Your task to perform on an android device: Search for dell xps on amazon.com, select the first entry, and add it to the cart. Image 0: 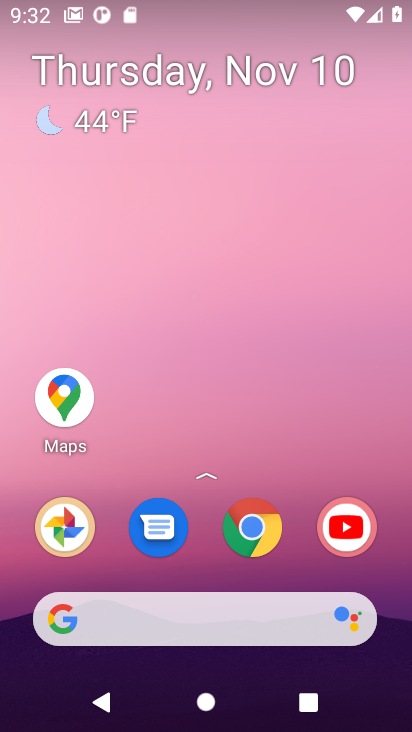
Step 0: drag from (150, 564) to (228, 137)
Your task to perform on an android device: Search for dell xps on amazon.com, select the first entry, and add it to the cart. Image 1: 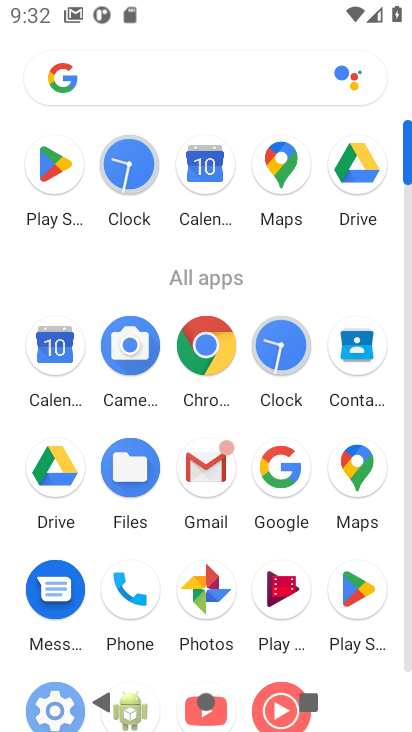
Step 1: click (205, 352)
Your task to perform on an android device: Search for dell xps on amazon.com, select the first entry, and add it to the cart. Image 2: 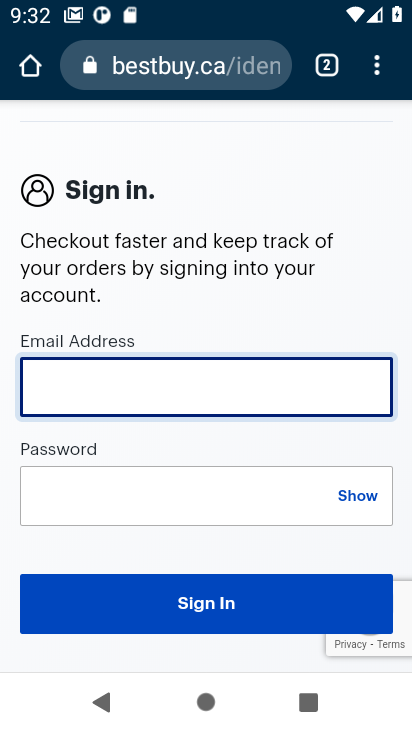
Step 2: click (230, 80)
Your task to perform on an android device: Search for dell xps on amazon.com, select the first entry, and add it to the cart. Image 3: 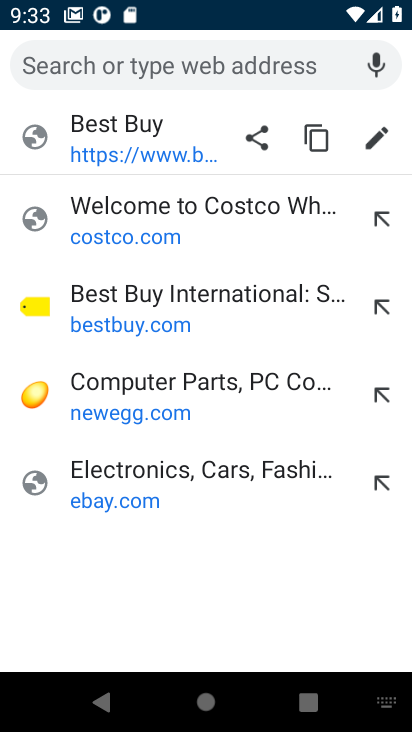
Step 3: type ""
Your task to perform on an android device: Search for dell xps on amazon.com, select the first entry, and add it to the cart. Image 4: 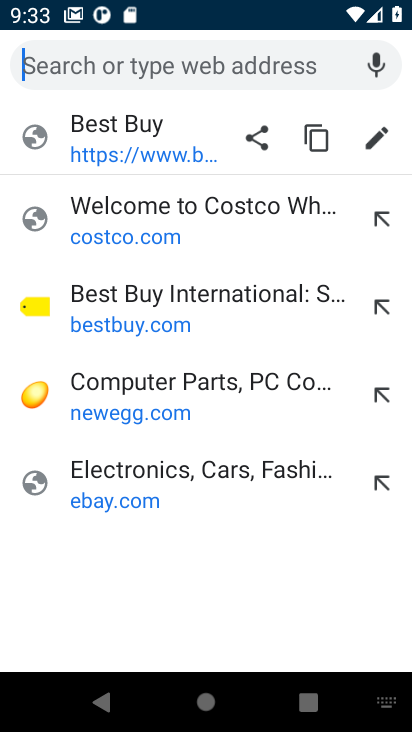
Step 4: type "amazon.com"
Your task to perform on an android device: Search for dell xps on amazon.com, select the first entry, and add it to the cart. Image 5: 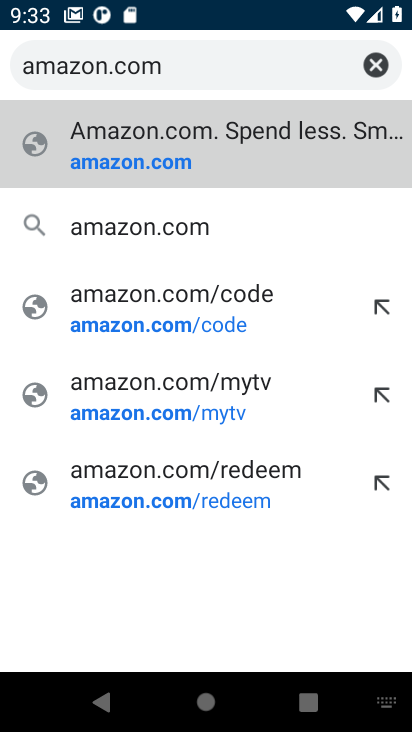
Step 5: press enter
Your task to perform on an android device: Search for dell xps on amazon.com, select the first entry, and add it to the cart. Image 6: 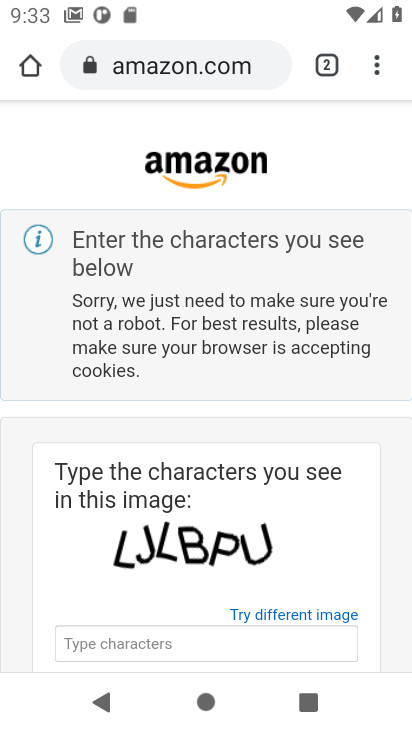
Step 6: task complete